Your task to perform on an android device: Open network settings Image 0: 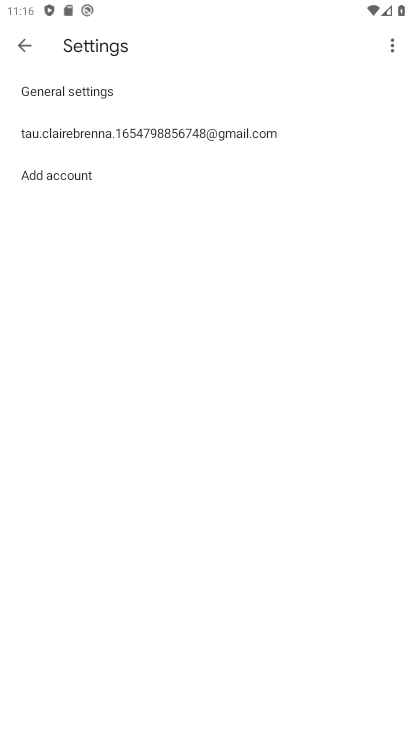
Step 0: press home button
Your task to perform on an android device: Open network settings Image 1: 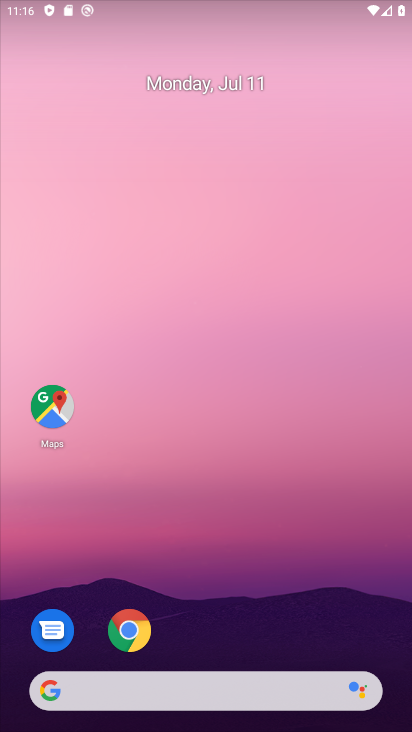
Step 1: drag from (233, 561) to (271, 112)
Your task to perform on an android device: Open network settings Image 2: 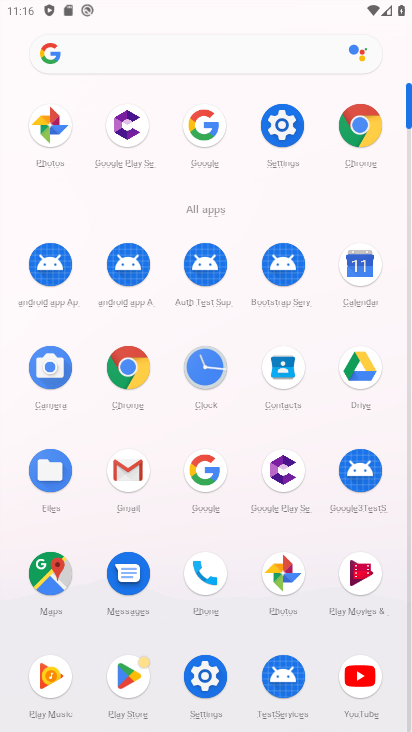
Step 2: click (284, 120)
Your task to perform on an android device: Open network settings Image 3: 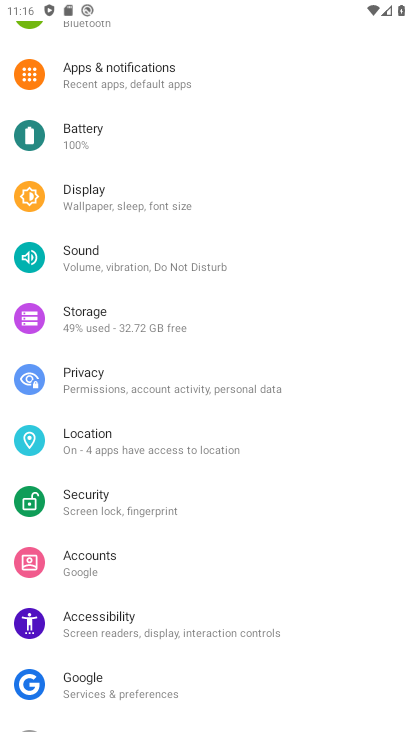
Step 3: drag from (150, 96) to (210, 611)
Your task to perform on an android device: Open network settings Image 4: 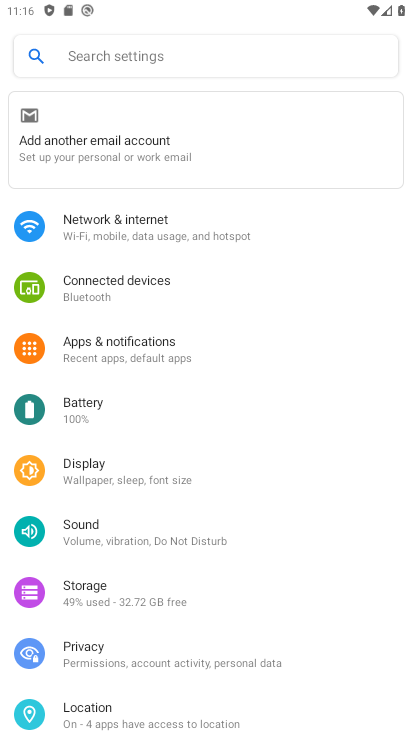
Step 4: click (117, 228)
Your task to perform on an android device: Open network settings Image 5: 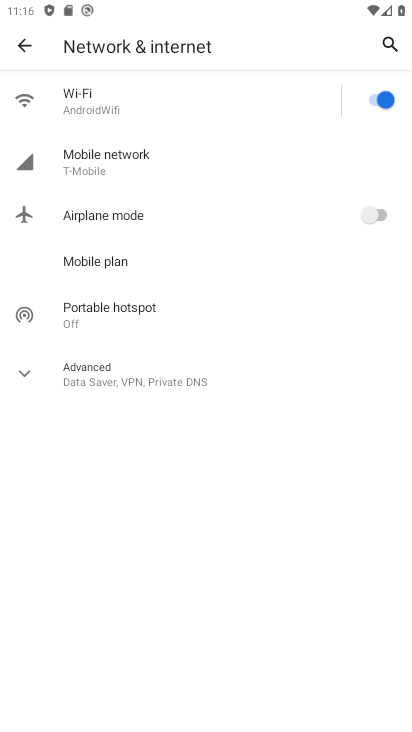
Step 5: click (119, 154)
Your task to perform on an android device: Open network settings Image 6: 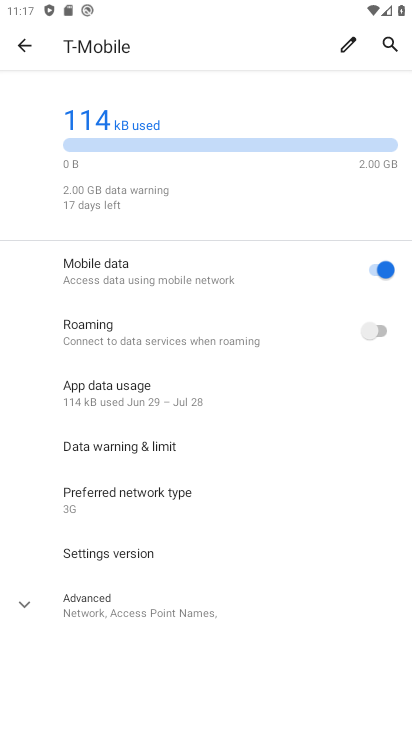
Step 6: task complete